Your task to perform on an android device: Do I have any events today? Image 0: 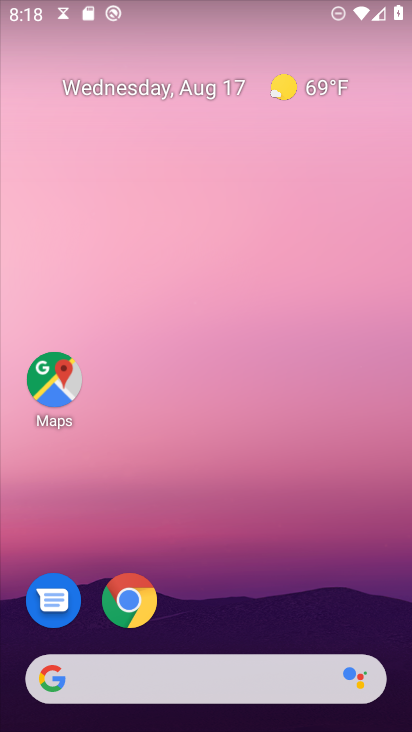
Step 0: press home button
Your task to perform on an android device: Do I have any events today? Image 1: 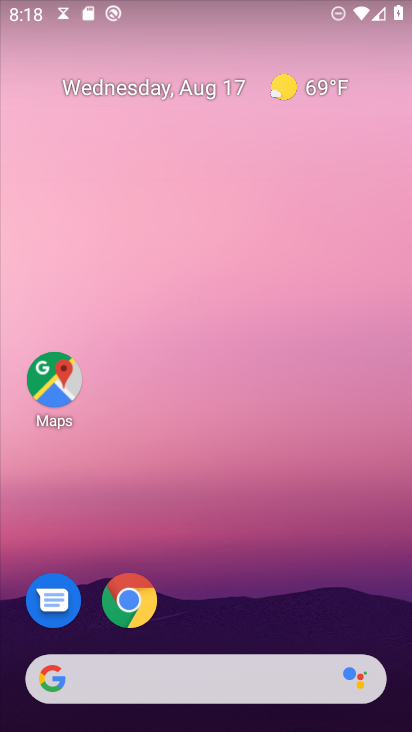
Step 1: drag from (244, 587) to (239, 112)
Your task to perform on an android device: Do I have any events today? Image 2: 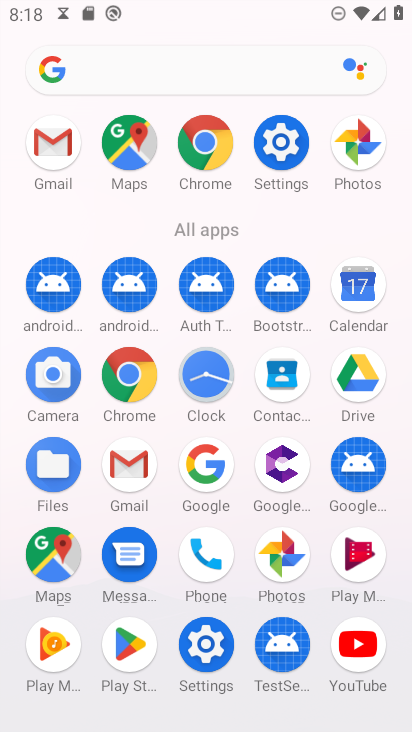
Step 2: click (369, 287)
Your task to perform on an android device: Do I have any events today? Image 3: 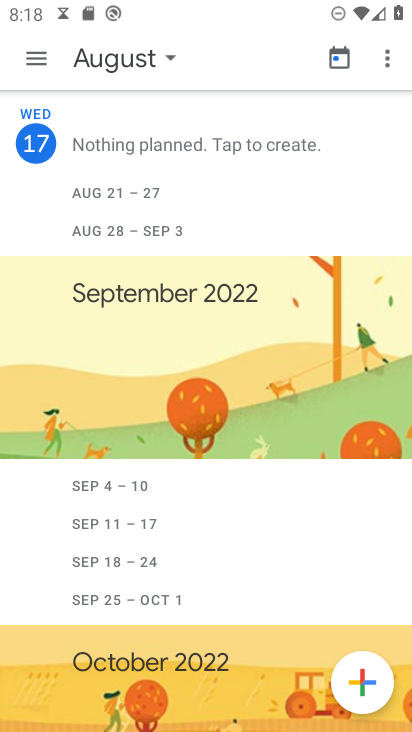
Step 3: task complete